Your task to perform on an android device: What is the news today? Image 0: 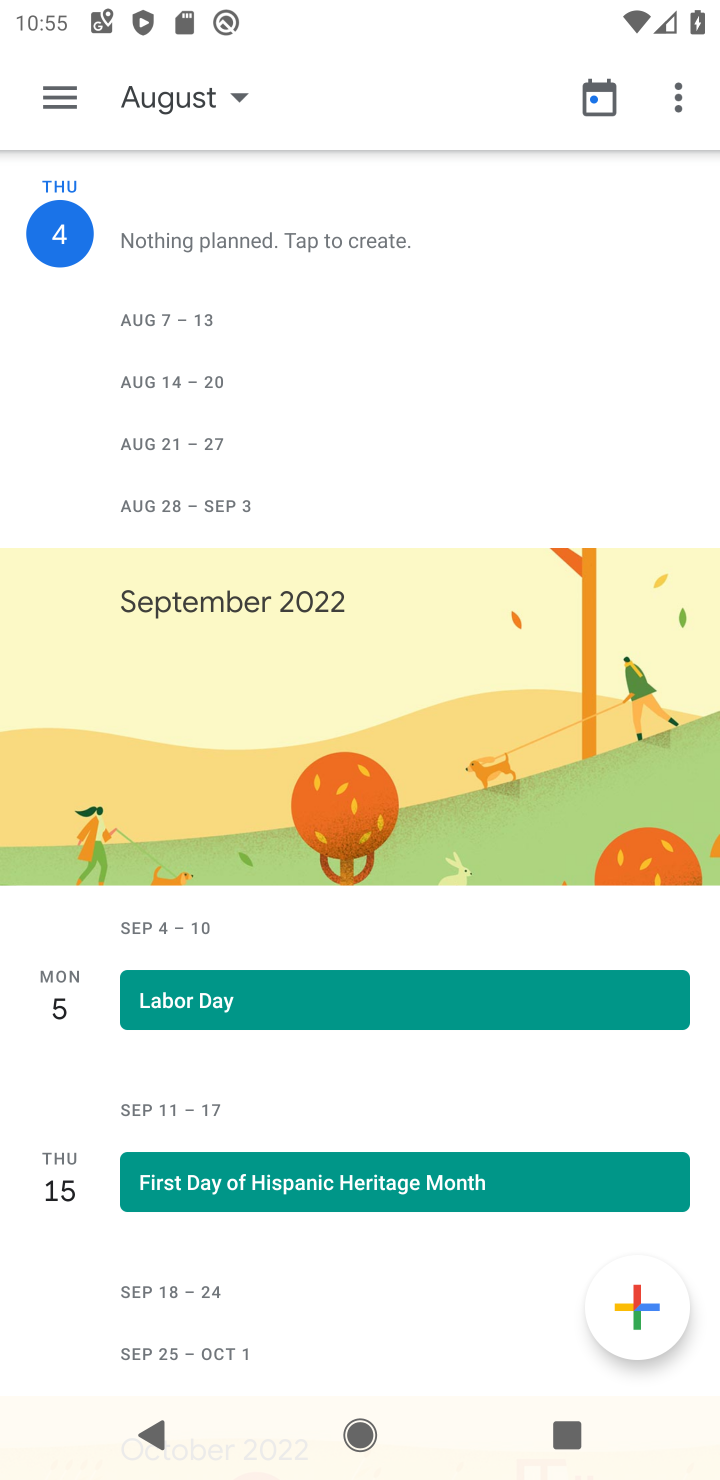
Step 0: press home button
Your task to perform on an android device: What is the news today? Image 1: 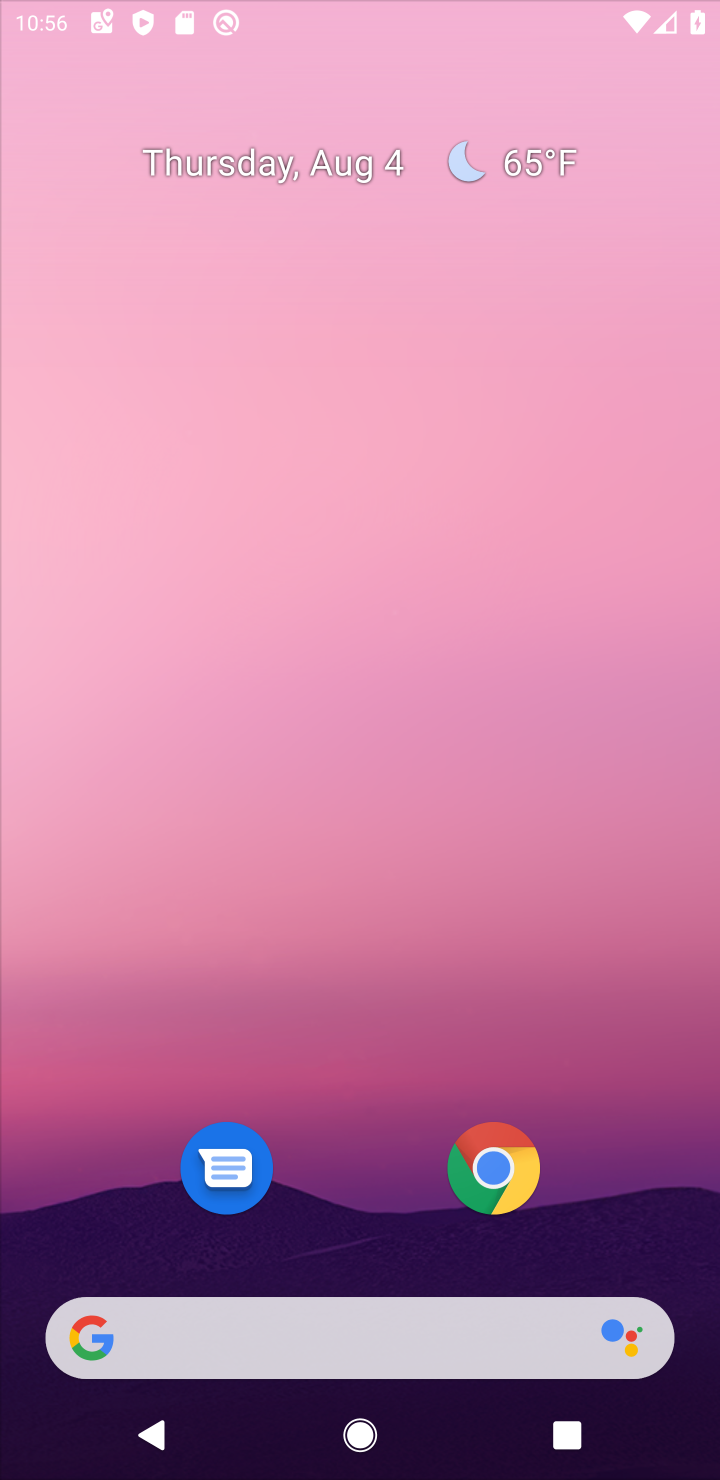
Step 1: drag from (557, 769) to (360, 90)
Your task to perform on an android device: What is the news today? Image 2: 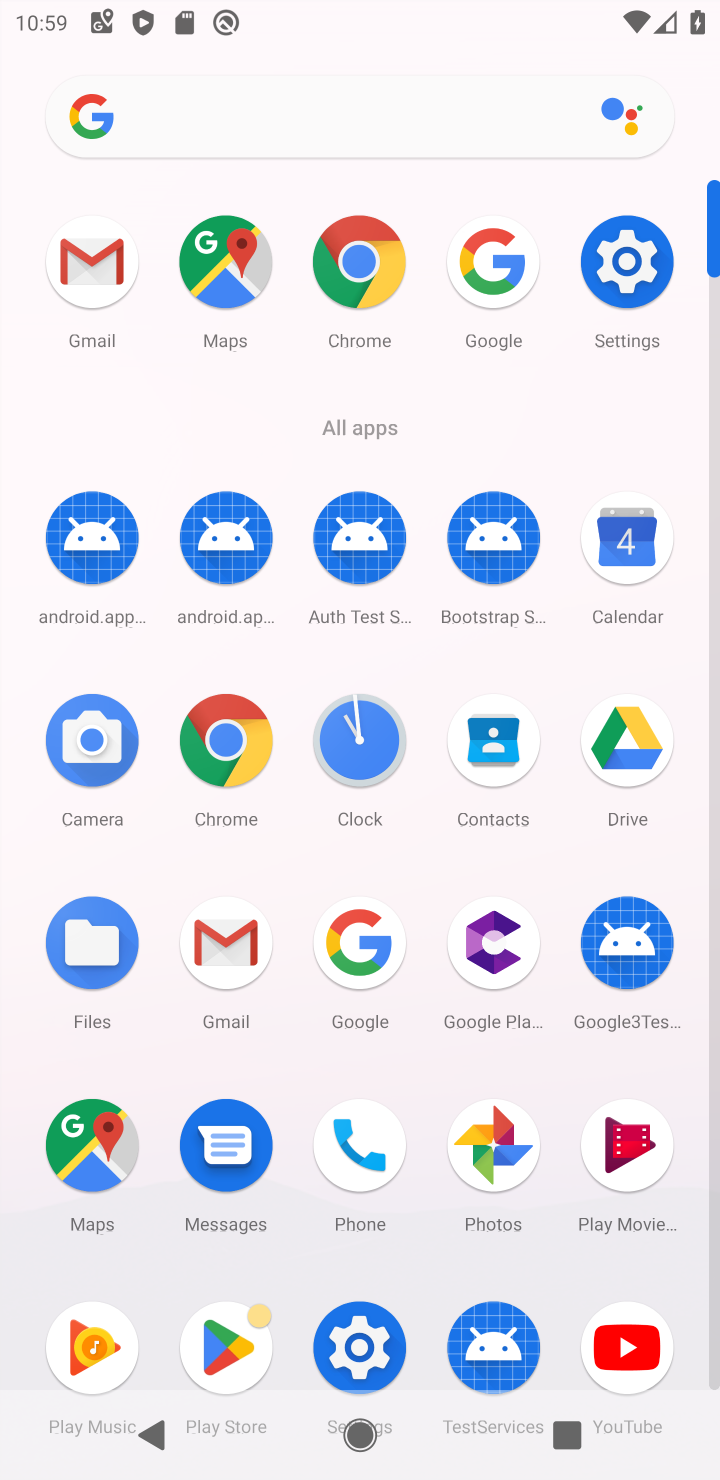
Step 2: click (339, 957)
Your task to perform on an android device: What is the news today? Image 3: 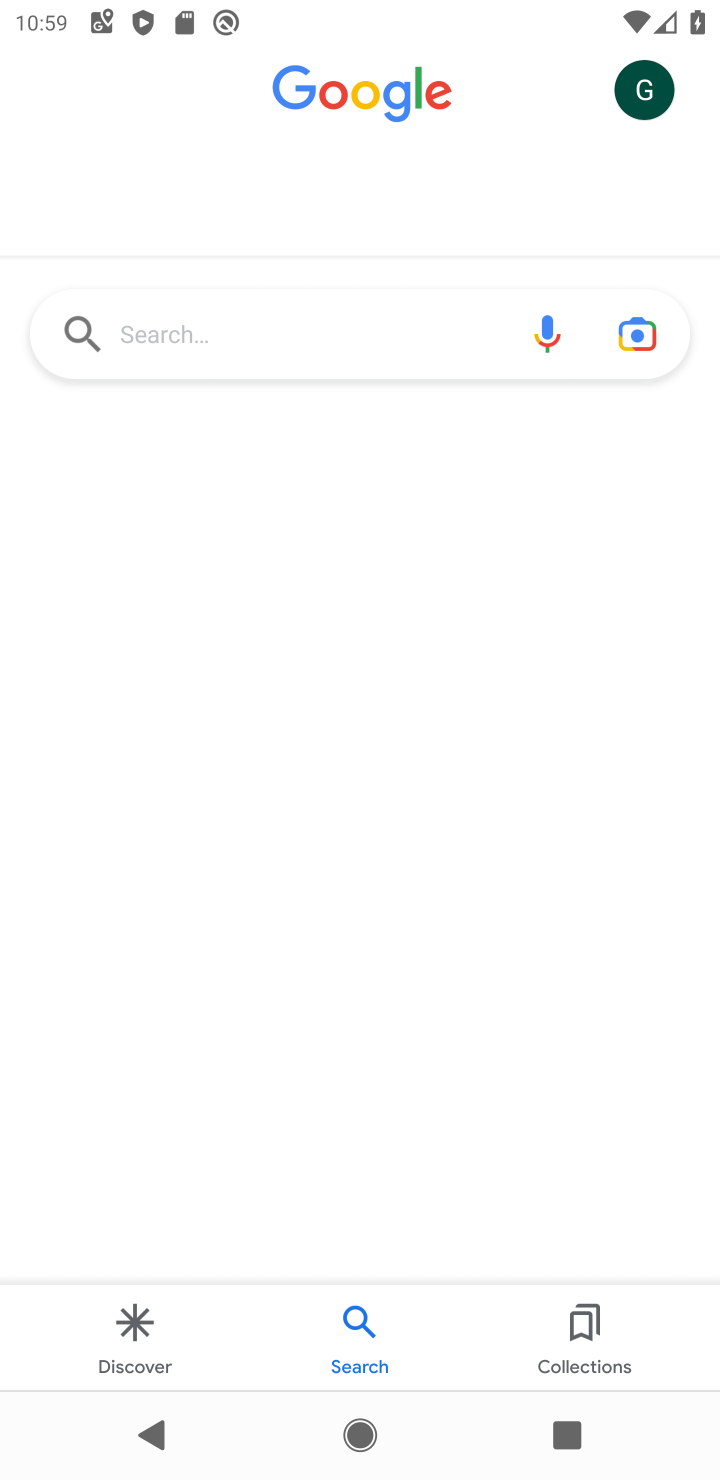
Step 3: click (216, 341)
Your task to perform on an android device: What is the news today? Image 4: 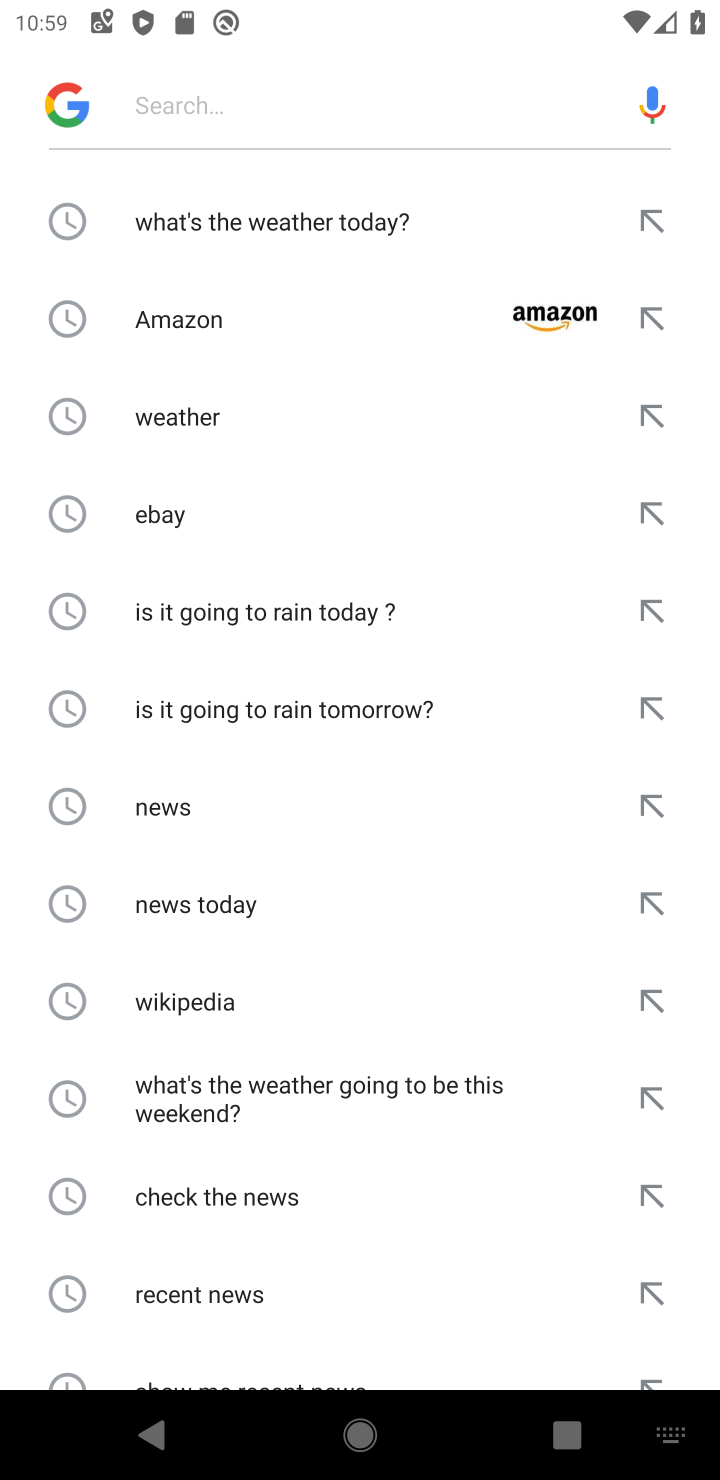
Step 4: type "What is the news today?"
Your task to perform on an android device: What is the news today? Image 5: 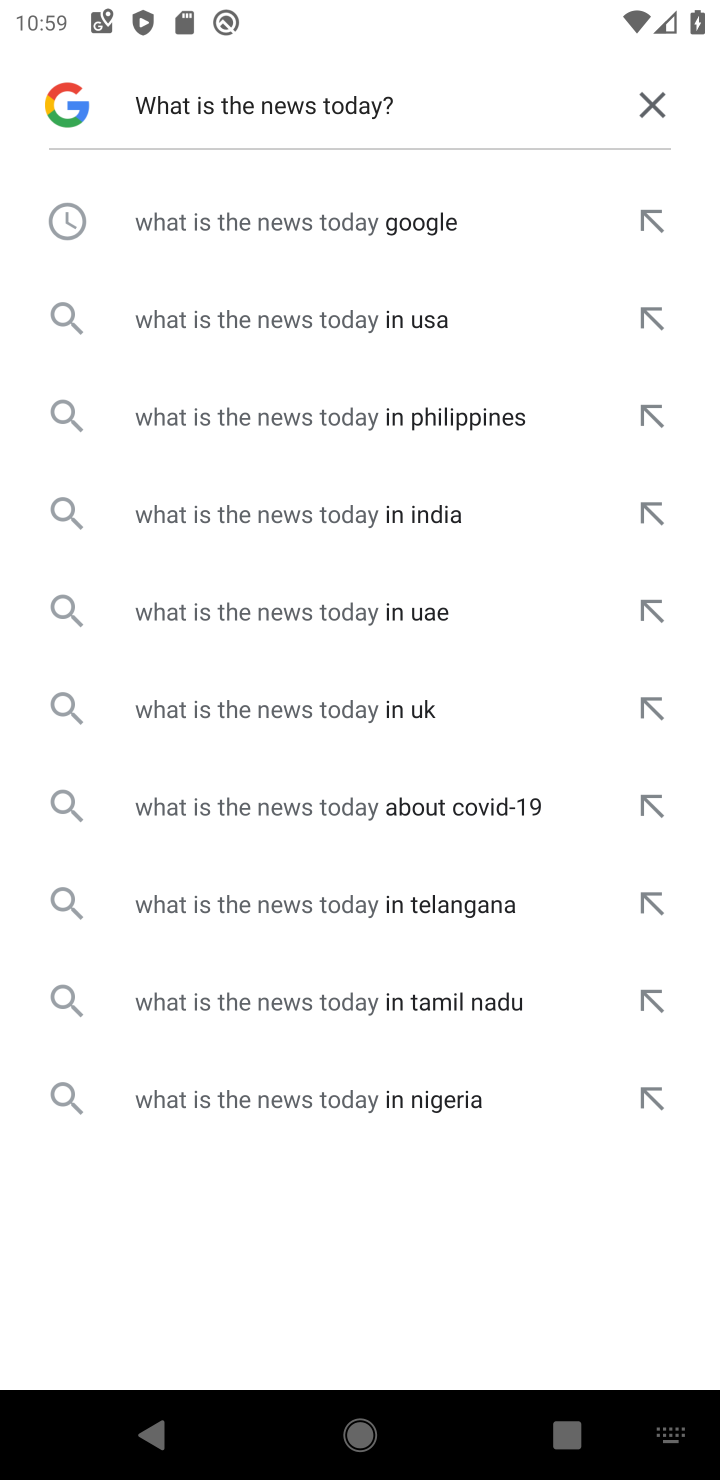
Step 5: click (439, 246)
Your task to perform on an android device: What is the news today? Image 6: 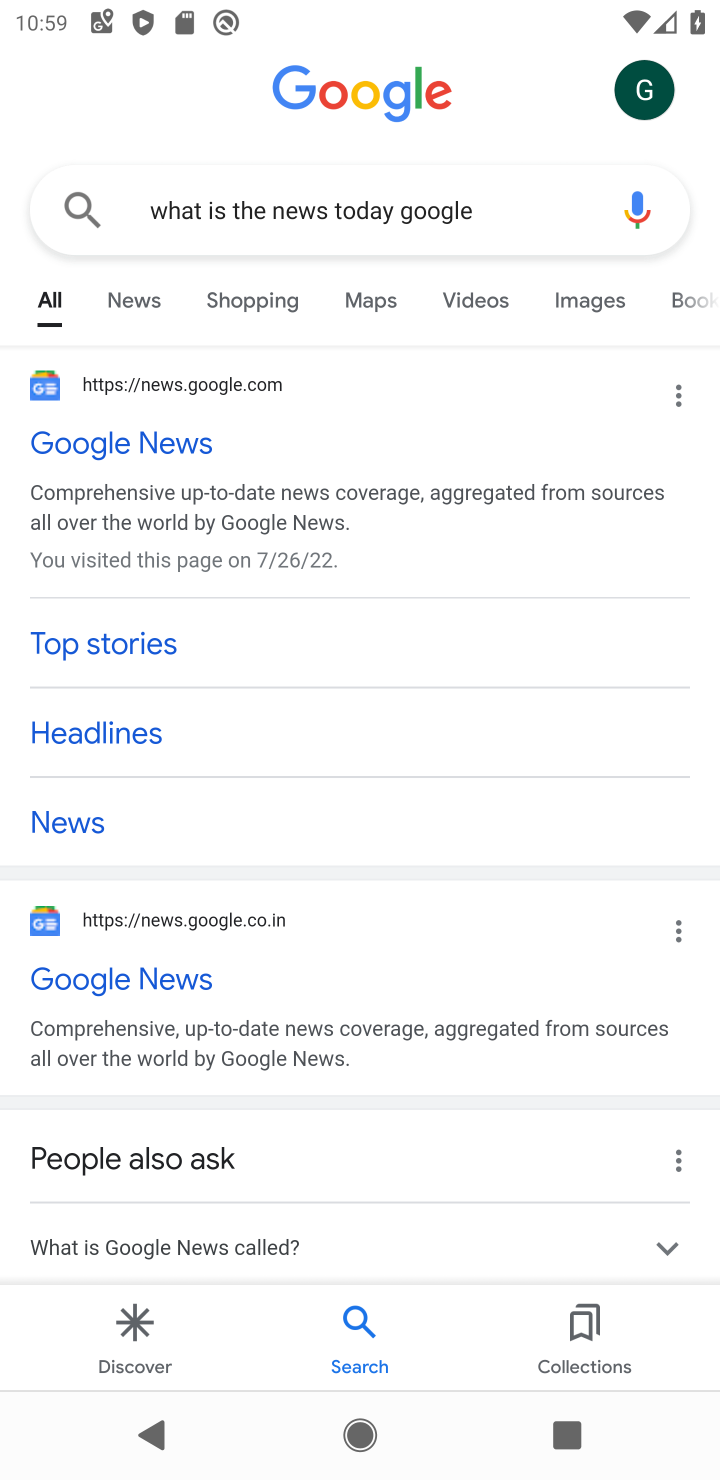
Step 6: task complete